Your task to perform on an android device: toggle location history Image 0: 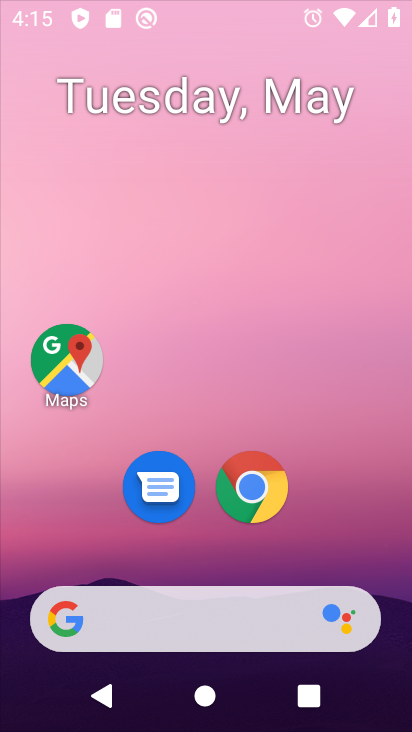
Step 0: press home button
Your task to perform on an android device: toggle location history Image 1: 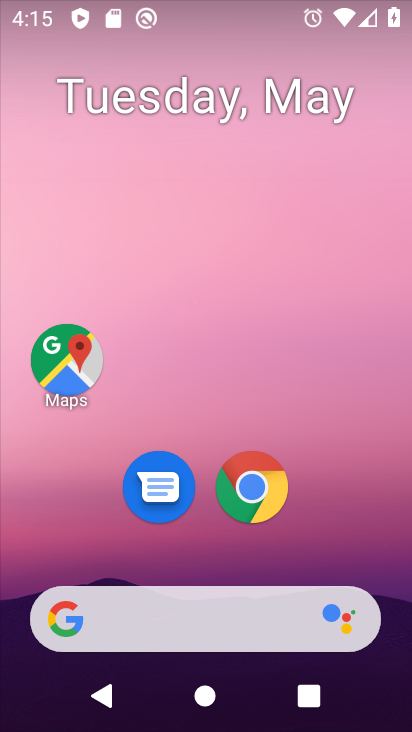
Step 1: drag from (323, 432) to (284, 82)
Your task to perform on an android device: toggle location history Image 2: 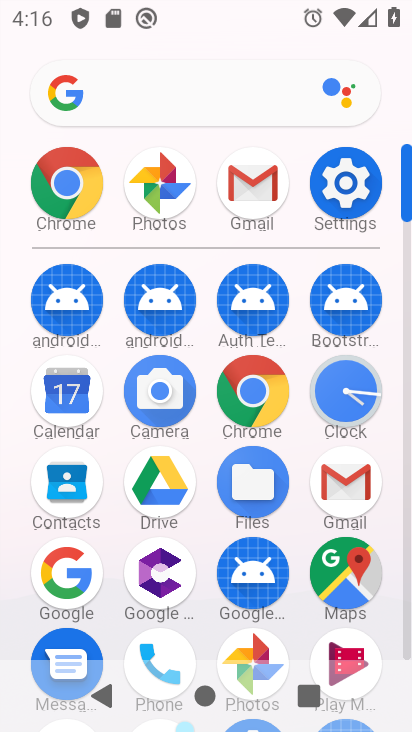
Step 2: click (352, 180)
Your task to perform on an android device: toggle location history Image 3: 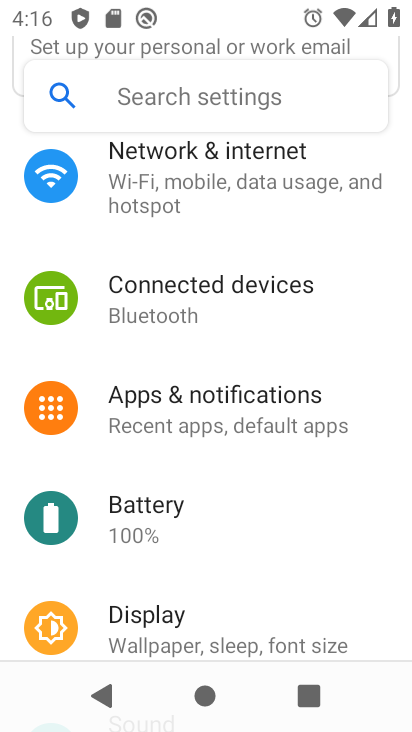
Step 3: drag from (309, 563) to (311, 140)
Your task to perform on an android device: toggle location history Image 4: 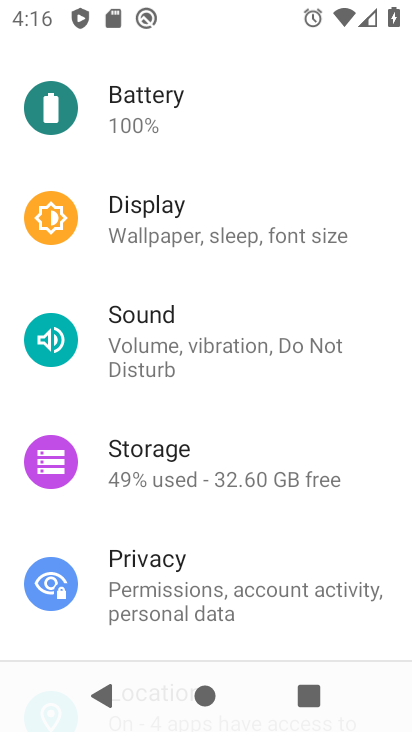
Step 4: drag from (244, 539) to (273, 236)
Your task to perform on an android device: toggle location history Image 5: 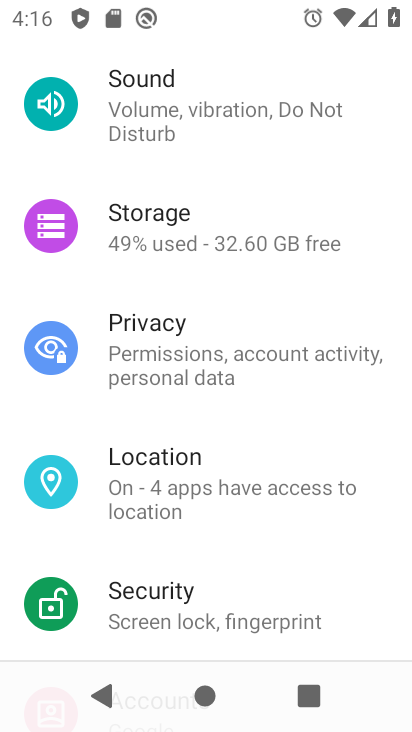
Step 5: click (208, 461)
Your task to perform on an android device: toggle location history Image 6: 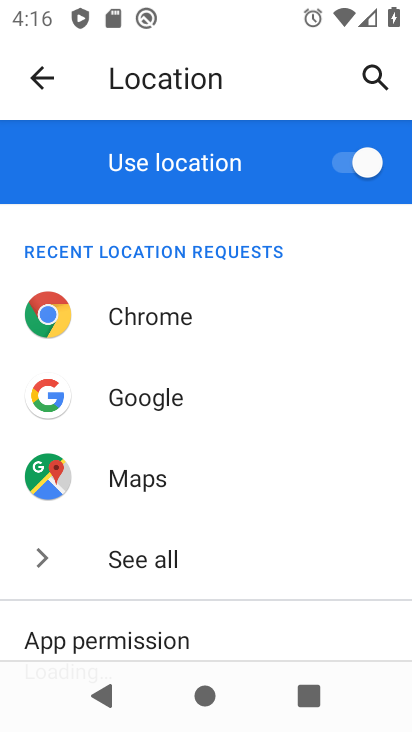
Step 6: drag from (260, 538) to (276, 39)
Your task to perform on an android device: toggle location history Image 7: 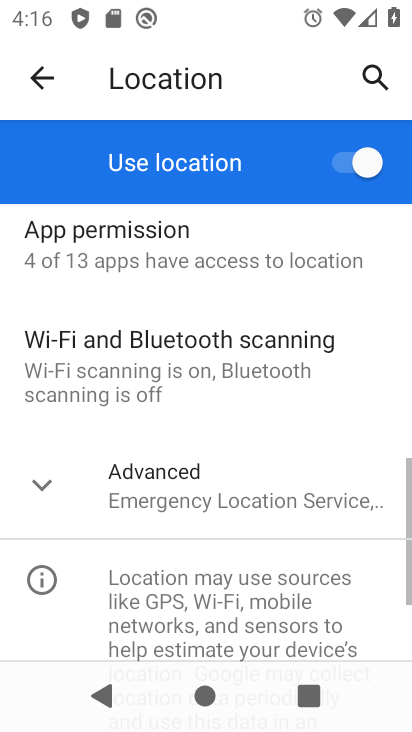
Step 7: click (224, 501)
Your task to perform on an android device: toggle location history Image 8: 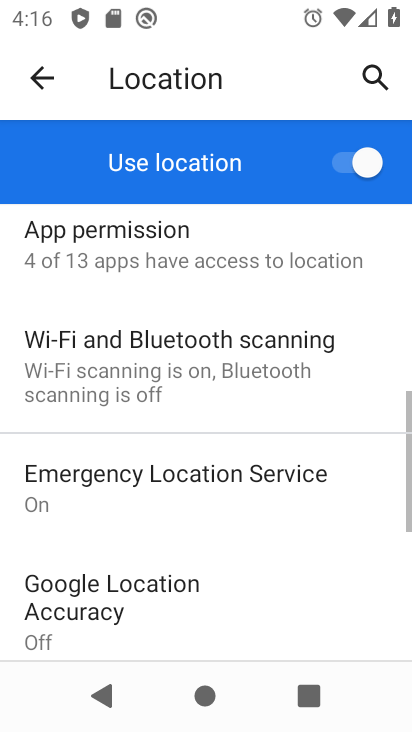
Step 8: drag from (270, 562) to (272, 117)
Your task to perform on an android device: toggle location history Image 9: 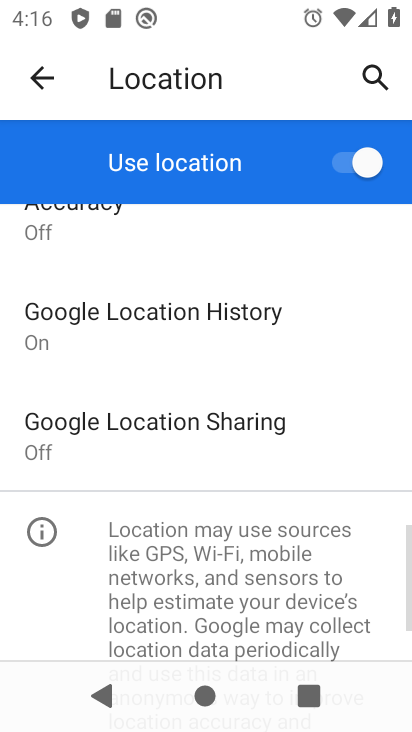
Step 9: drag from (114, 269) to (130, 460)
Your task to perform on an android device: toggle location history Image 10: 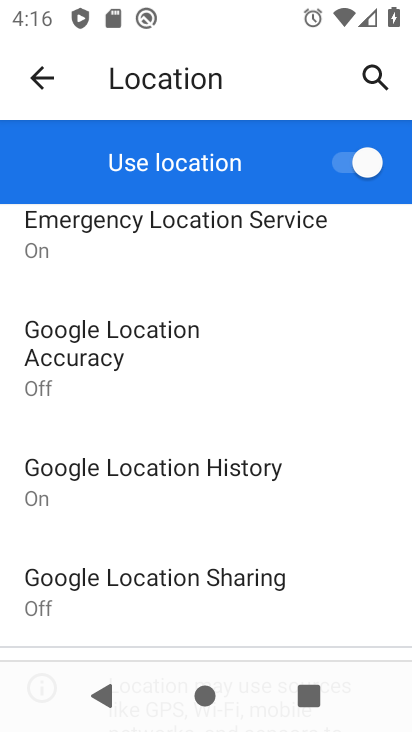
Step 10: click (168, 501)
Your task to perform on an android device: toggle location history Image 11: 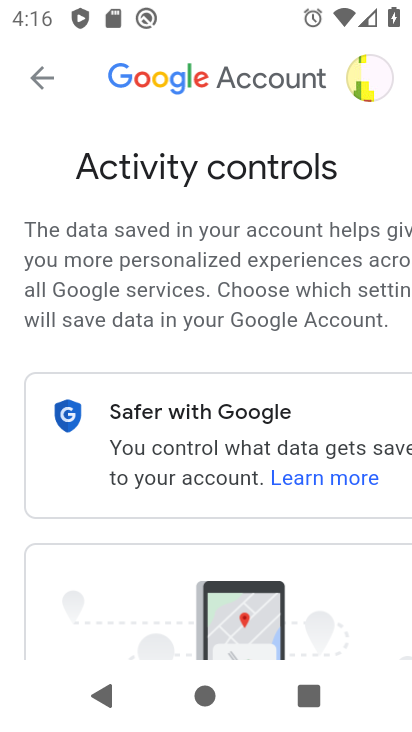
Step 11: drag from (315, 625) to (244, 142)
Your task to perform on an android device: toggle location history Image 12: 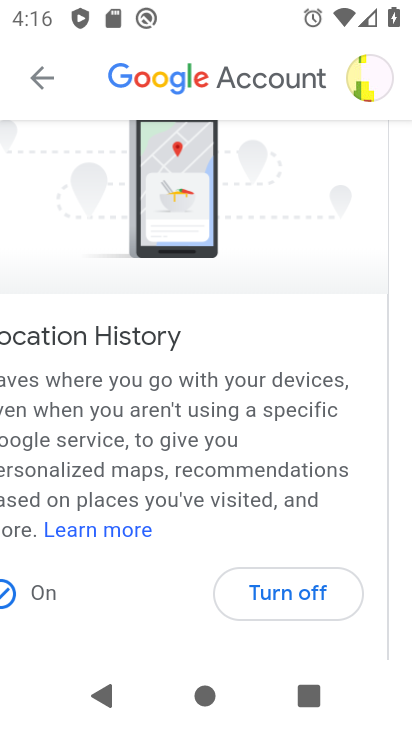
Step 12: drag from (221, 508) to (264, 319)
Your task to perform on an android device: toggle location history Image 13: 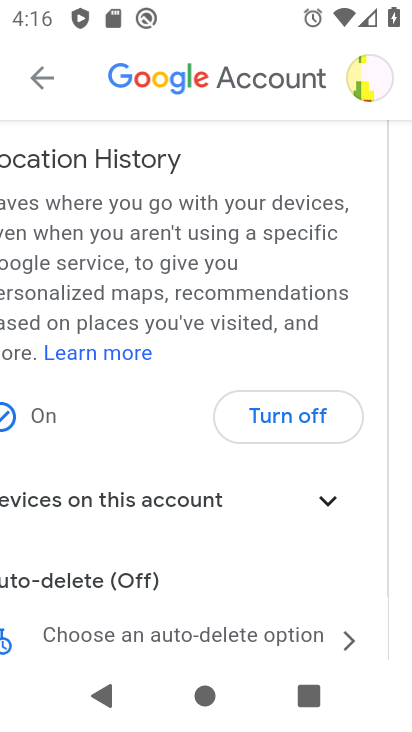
Step 13: click (294, 421)
Your task to perform on an android device: toggle location history Image 14: 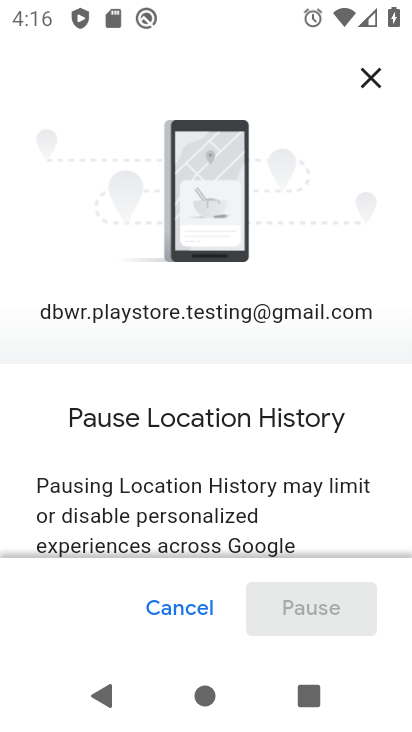
Step 14: drag from (210, 478) to (223, 182)
Your task to perform on an android device: toggle location history Image 15: 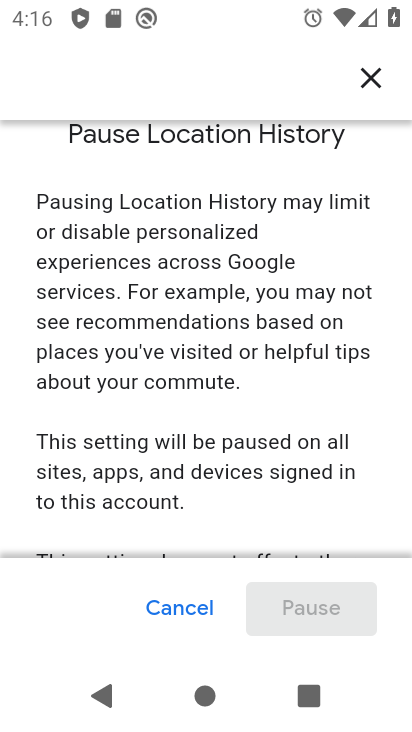
Step 15: drag from (290, 481) to (210, 197)
Your task to perform on an android device: toggle location history Image 16: 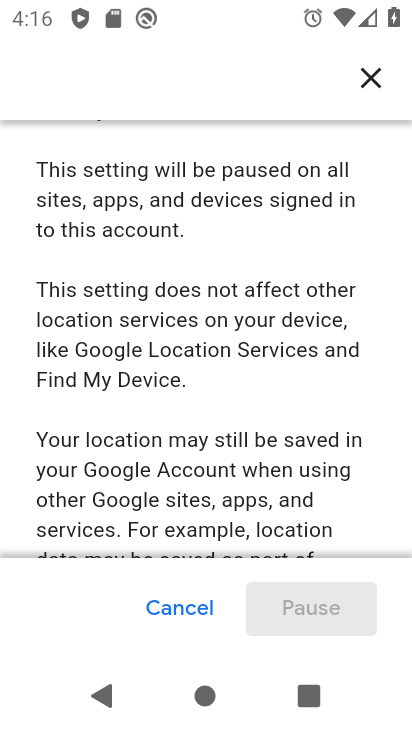
Step 16: drag from (256, 493) to (207, 179)
Your task to perform on an android device: toggle location history Image 17: 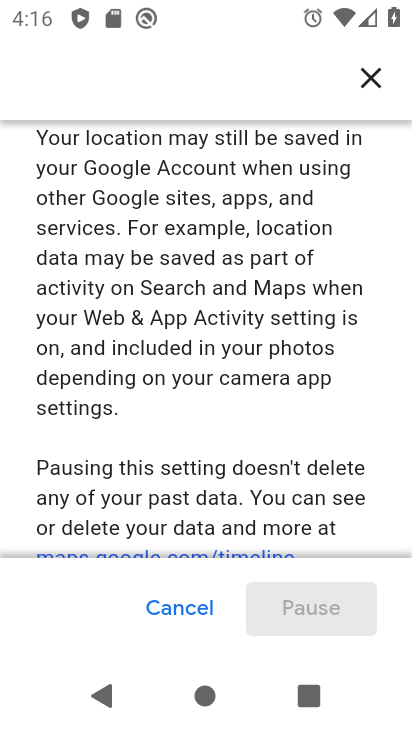
Step 17: drag from (316, 491) to (246, 180)
Your task to perform on an android device: toggle location history Image 18: 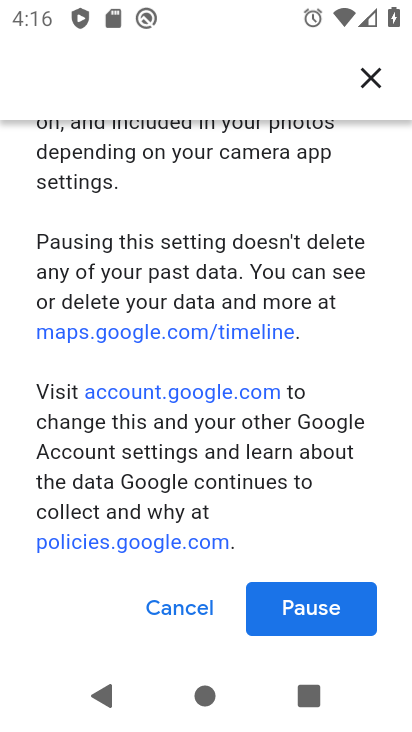
Step 18: click (311, 594)
Your task to perform on an android device: toggle location history Image 19: 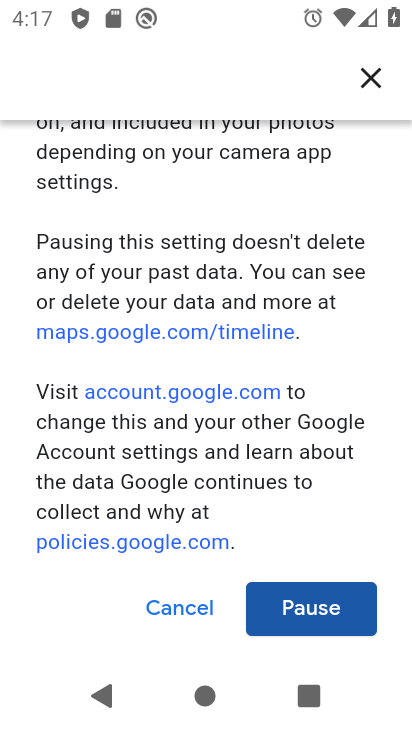
Step 19: click (321, 621)
Your task to perform on an android device: toggle location history Image 20: 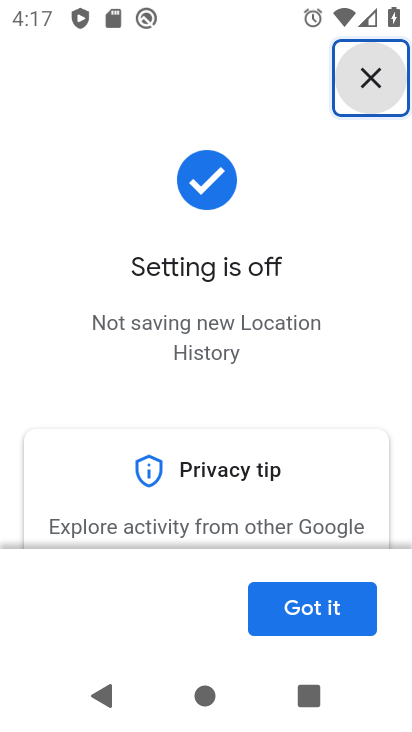
Step 20: task complete